Your task to perform on an android device: open a bookmark in the chrome app Image 0: 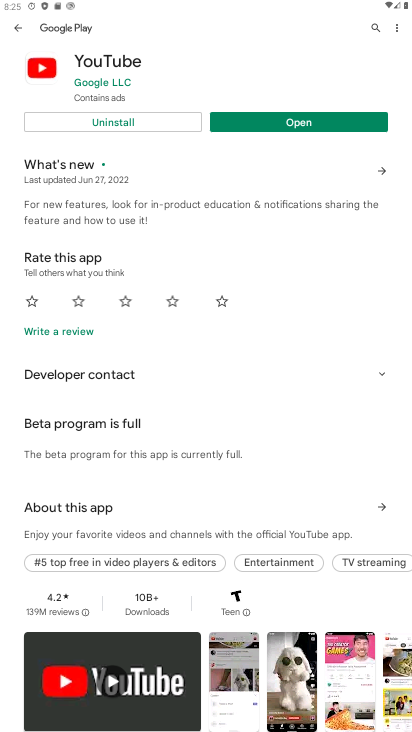
Step 0: press home button
Your task to perform on an android device: open a bookmark in the chrome app Image 1: 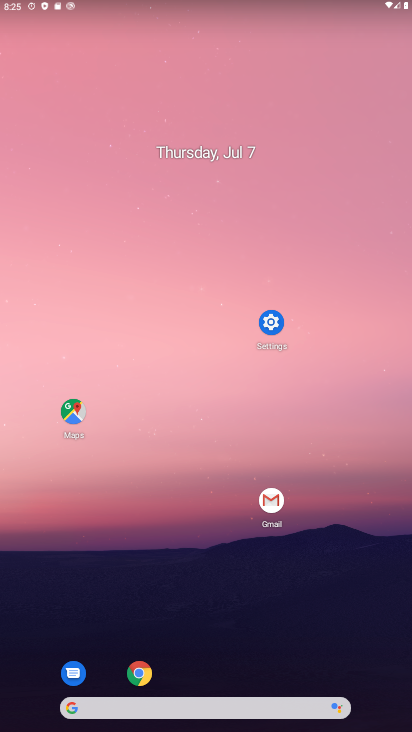
Step 1: click (142, 675)
Your task to perform on an android device: open a bookmark in the chrome app Image 2: 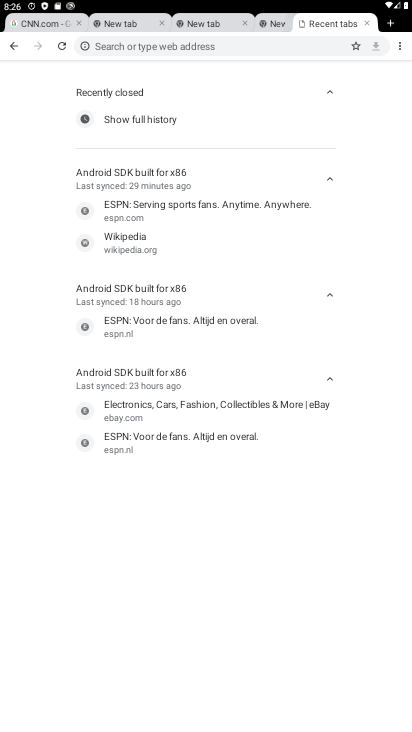
Step 2: click (400, 39)
Your task to perform on an android device: open a bookmark in the chrome app Image 3: 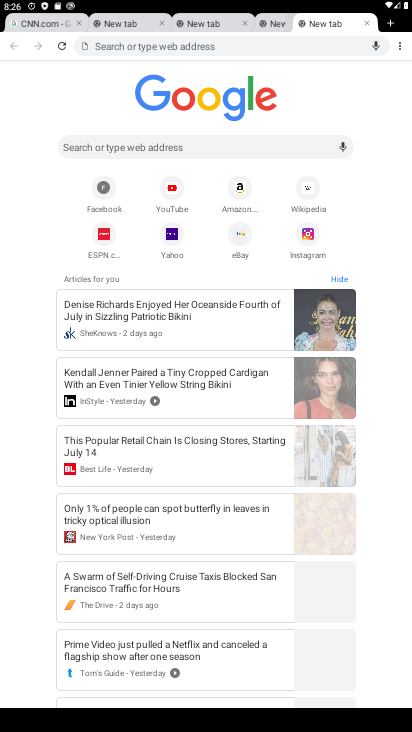
Step 3: click (400, 39)
Your task to perform on an android device: open a bookmark in the chrome app Image 4: 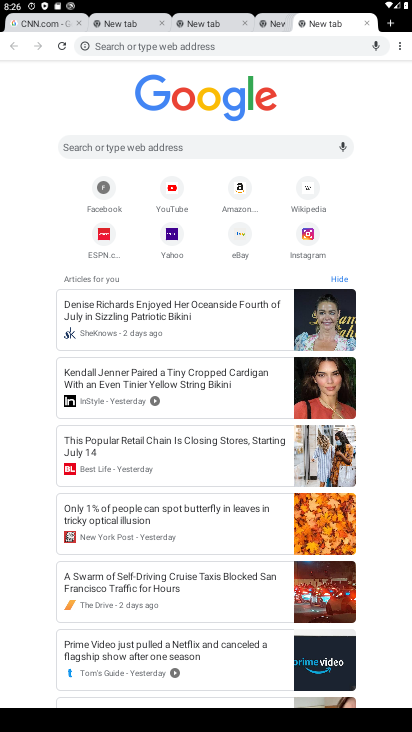
Step 4: click (400, 39)
Your task to perform on an android device: open a bookmark in the chrome app Image 5: 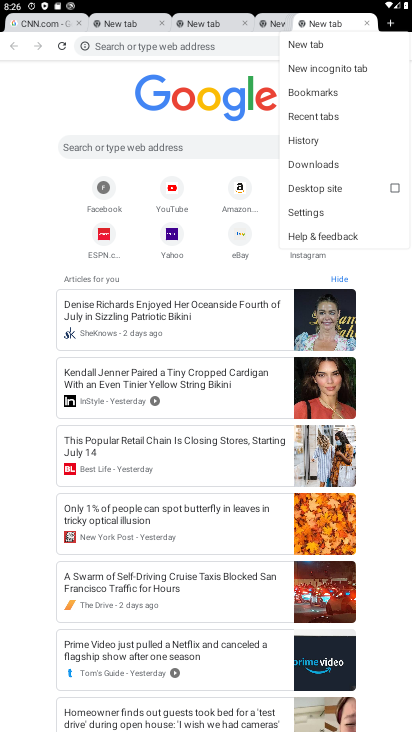
Step 5: click (311, 84)
Your task to perform on an android device: open a bookmark in the chrome app Image 6: 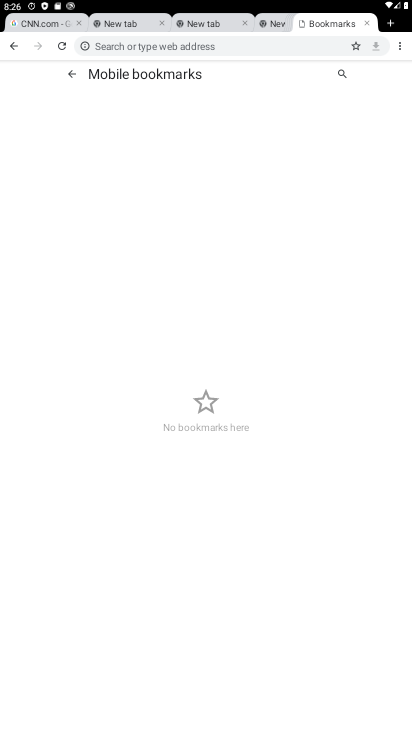
Step 6: task complete